Your task to perform on an android device: turn on bluetooth scan Image 0: 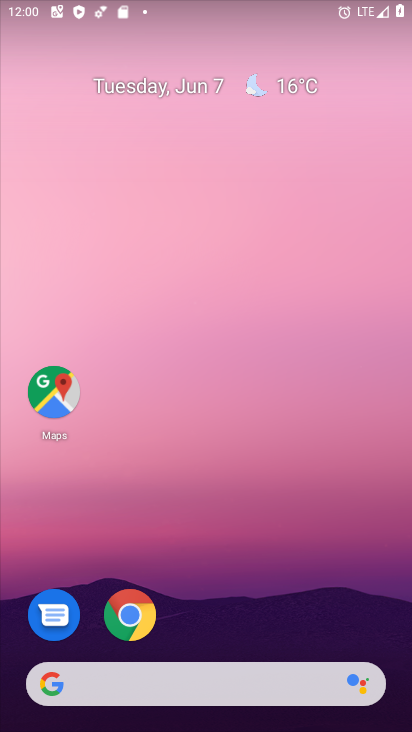
Step 0: drag from (213, 648) to (227, 96)
Your task to perform on an android device: turn on bluetooth scan Image 1: 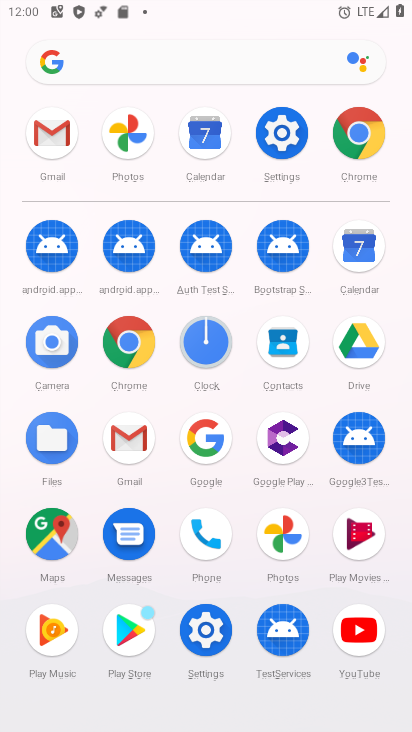
Step 1: click (281, 123)
Your task to perform on an android device: turn on bluetooth scan Image 2: 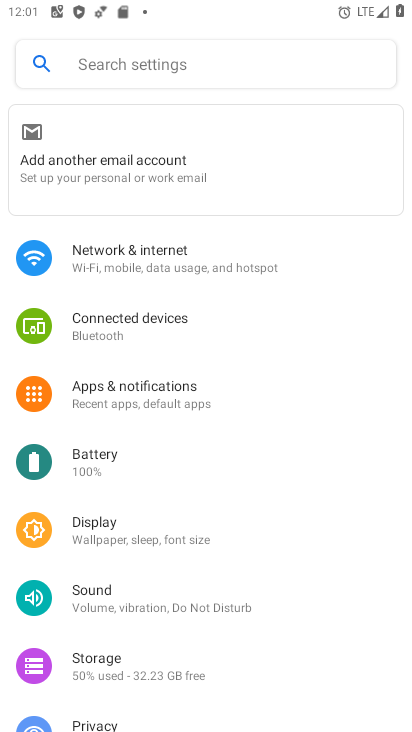
Step 2: drag from (171, 685) to (179, 109)
Your task to perform on an android device: turn on bluetooth scan Image 3: 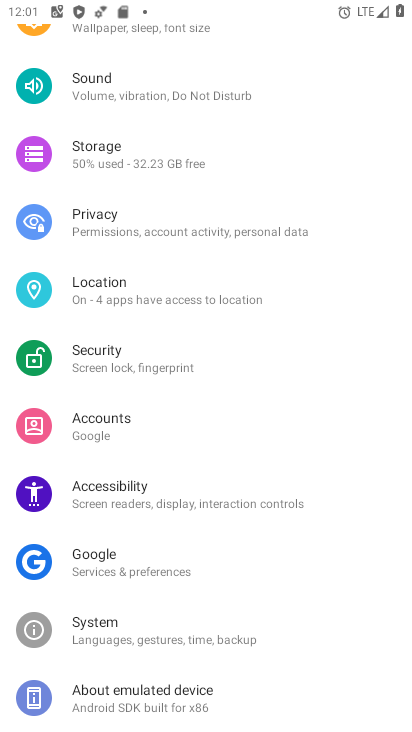
Step 3: click (136, 285)
Your task to perform on an android device: turn on bluetooth scan Image 4: 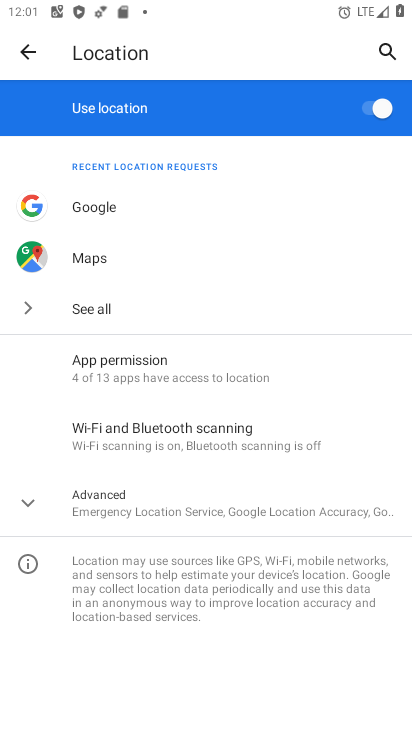
Step 4: click (29, 494)
Your task to perform on an android device: turn on bluetooth scan Image 5: 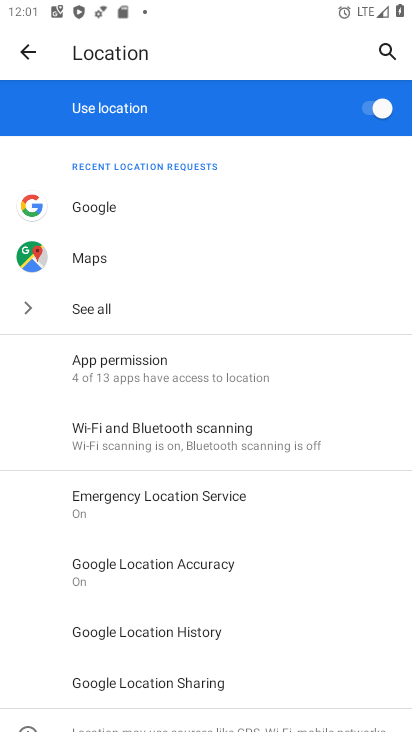
Step 5: click (155, 429)
Your task to perform on an android device: turn on bluetooth scan Image 6: 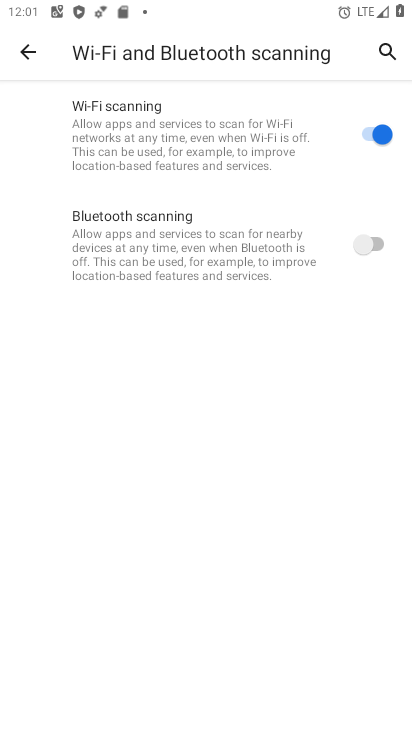
Step 6: click (369, 236)
Your task to perform on an android device: turn on bluetooth scan Image 7: 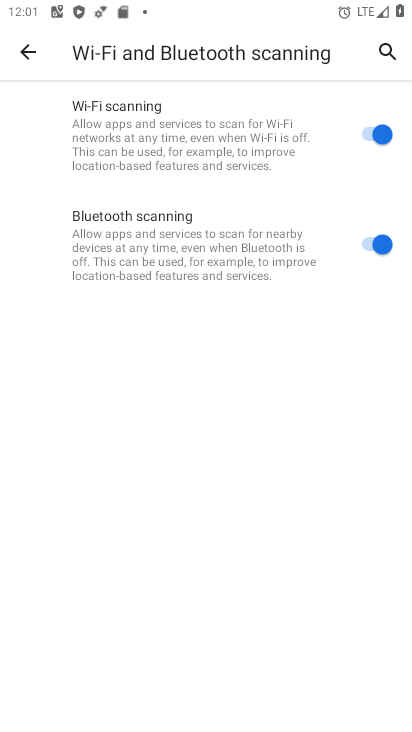
Step 7: task complete